Your task to perform on an android device: Toggle the flashlight Image 0: 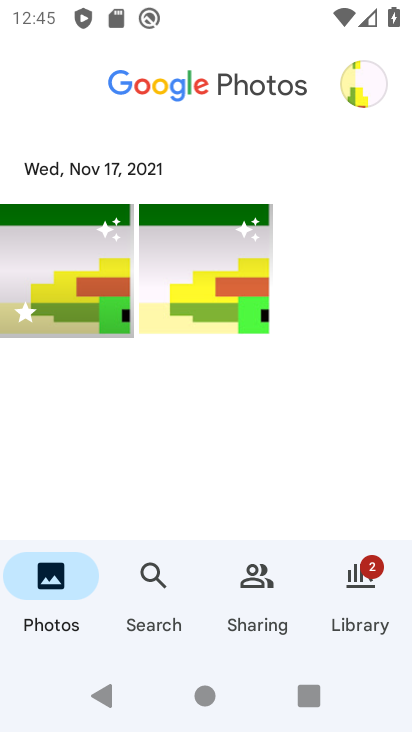
Step 0: press home button
Your task to perform on an android device: Toggle the flashlight Image 1: 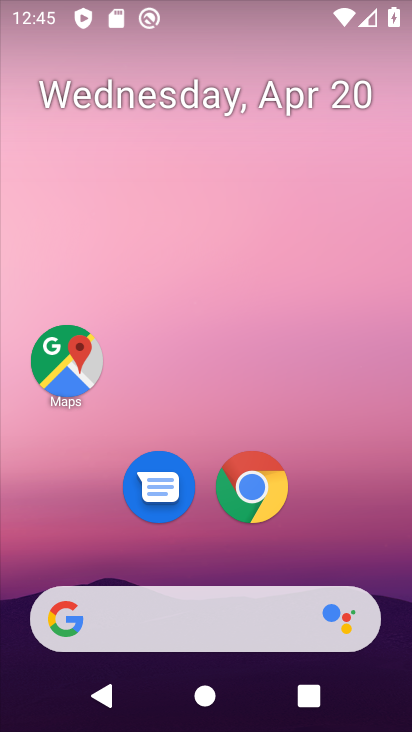
Step 1: drag from (320, 541) to (223, 32)
Your task to perform on an android device: Toggle the flashlight Image 2: 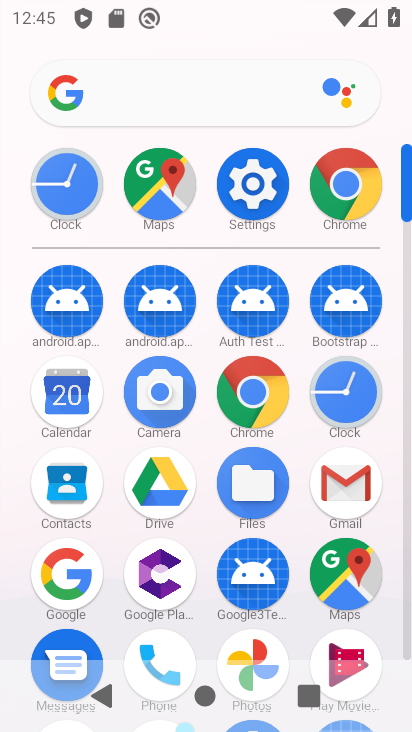
Step 2: click (258, 174)
Your task to perform on an android device: Toggle the flashlight Image 3: 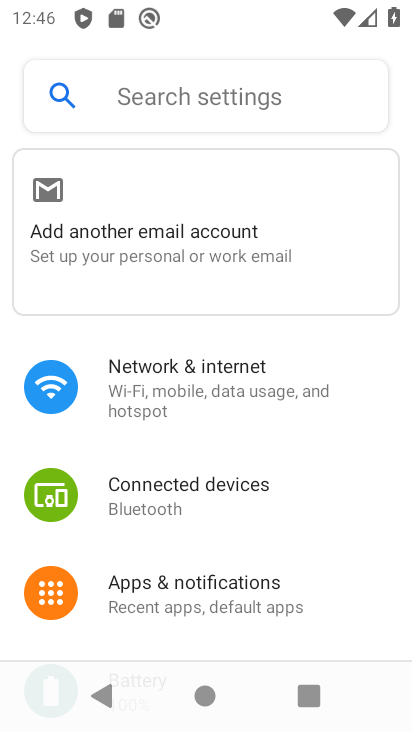
Step 3: task complete